Your task to perform on an android device: allow notifications from all sites in the chrome app Image 0: 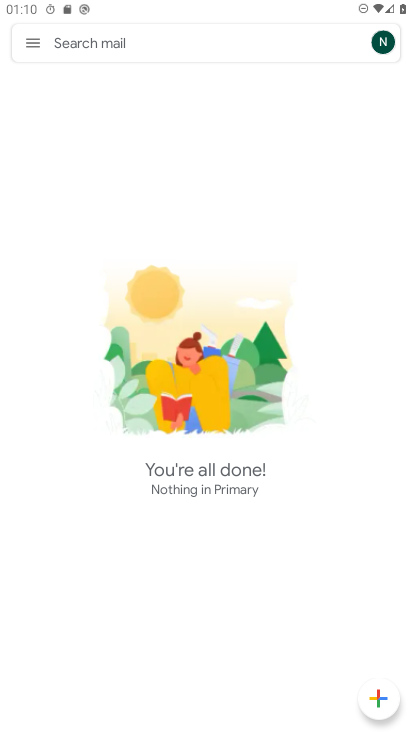
Step 0: press home button
Your task to perform on an android device: allow notifications from all sites in the chrome app Image 1: 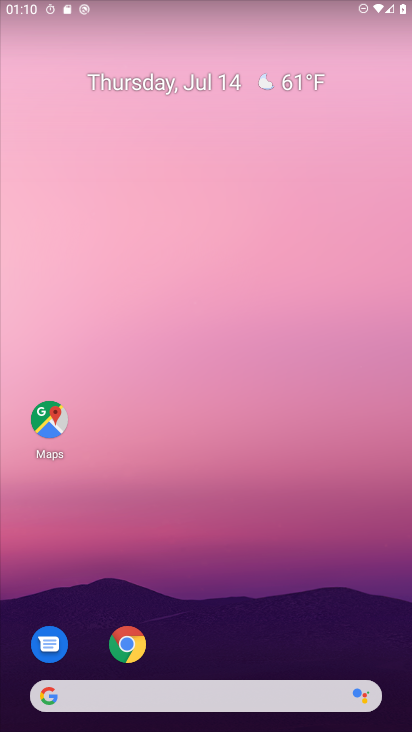
Step 1: drag from (336, 590) to (272, 141)
Your task to perform on an android device: allow notifications from all sites in the chrome app Image 2: 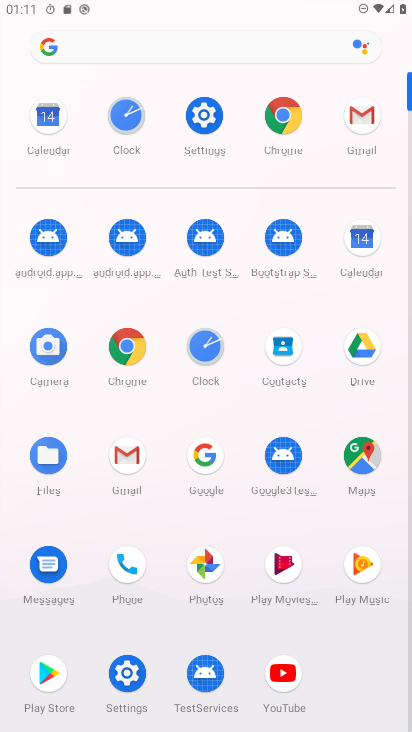
Step 2: click (283, 111)
Your task to perform on an android device: allow notifications from all sites in the chrome app Image 3: 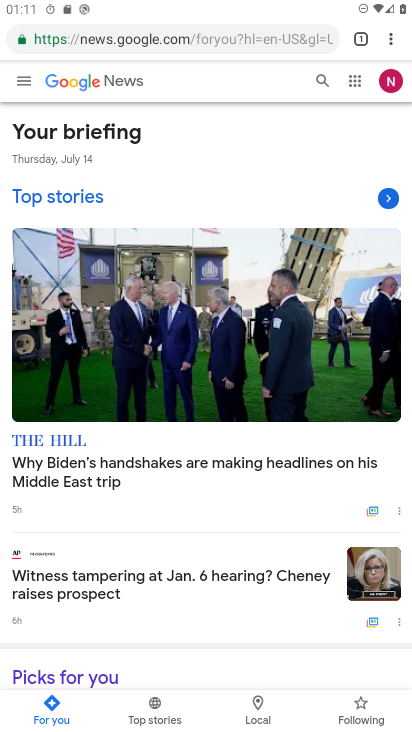
Step 3: drag from (386, 29) to (240, 456)
Your task to perform on an android device: allow notifications from all sites in the chrome app Image 4: 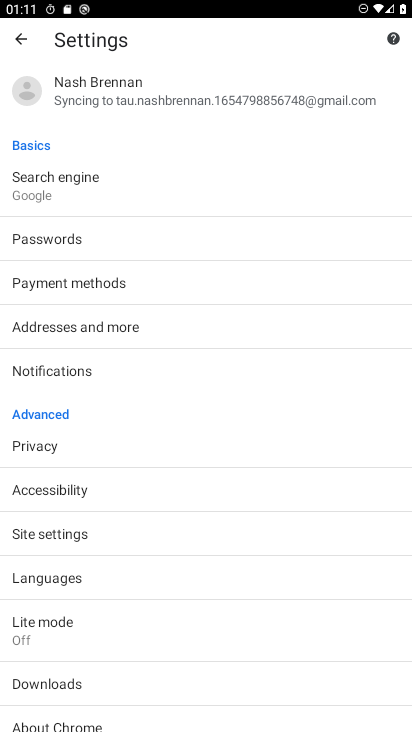
Step 4: click (80, 534)
Your task to perform on an android device: allow notifications from all sites in the chrome app Image 5: 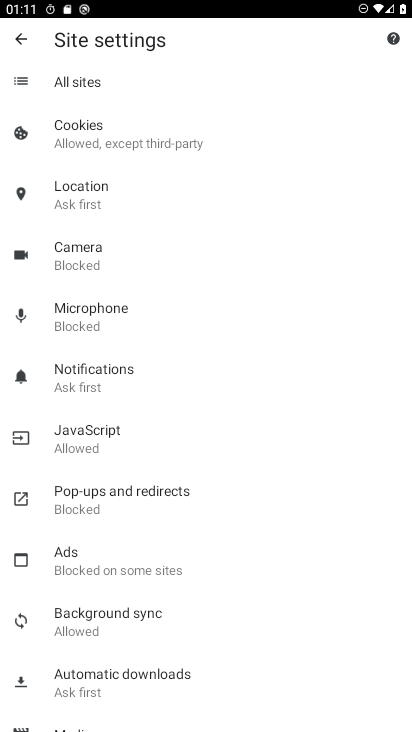
Step 5: click (126, 368)
Your task to perform on an android device: allow notifications from all sites in the chrome app Image 6: 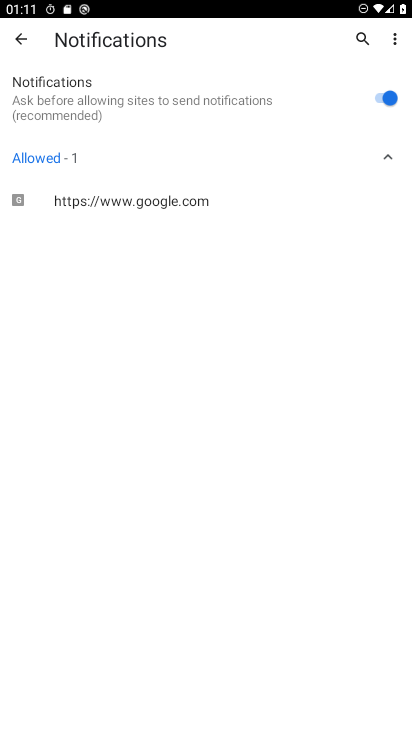
Step 6: task complete